Your task to perform on an android device: Open sound settings Image 0: 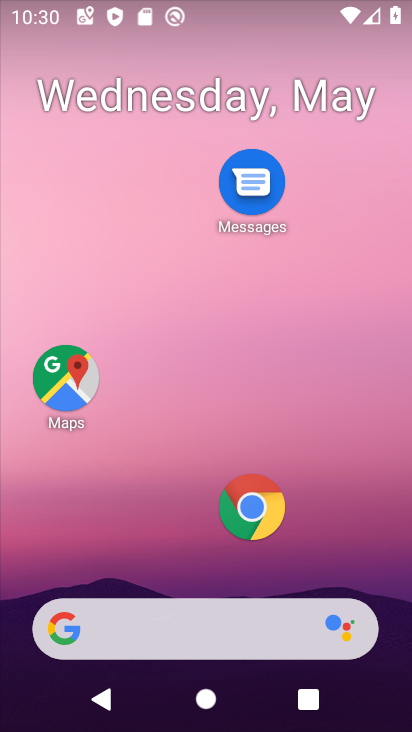
Step 0: drag from (192, 569) to (187, 36)
Your task to perform on an android device: Open sound settings Image 1: 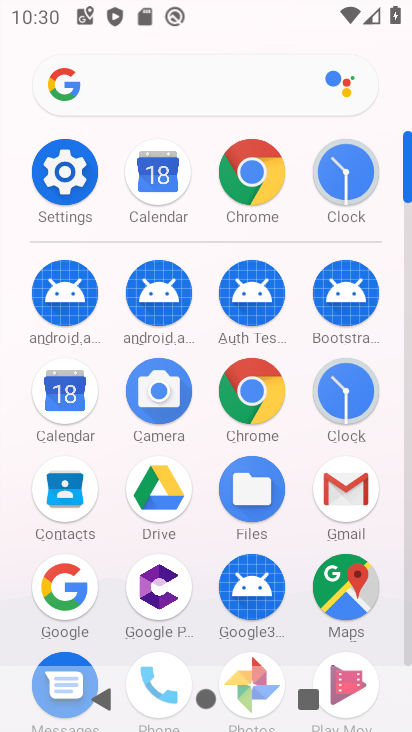
Step 1: click (59, 169)
Your task to perform on an android device: Open sound settings Image 2: 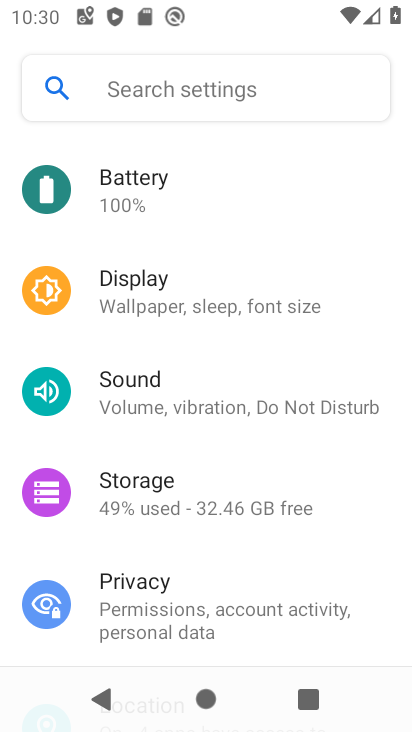
Step 2: click (172, 383)
Your task to perform on an android device: Open sound settings Image 3: 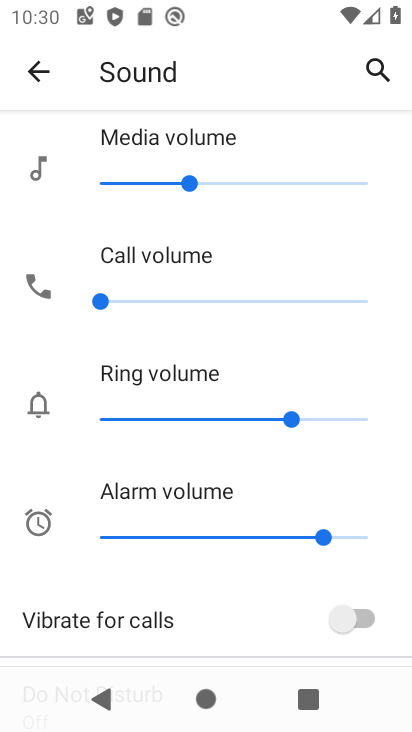
Step 3: drag from (228, 629) to (251, 173)
Your task to perform on an android device: Open sound settings Image 4: 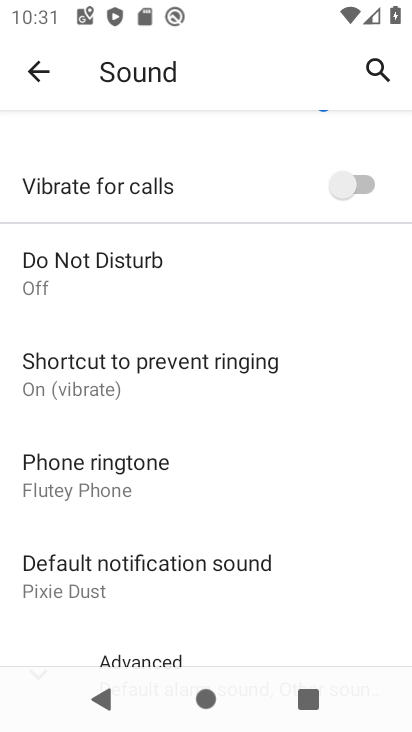
Step 4: drag from (186, 587) to (229, 149)
Your task to perform on an android device: Open sound settings Image 5: 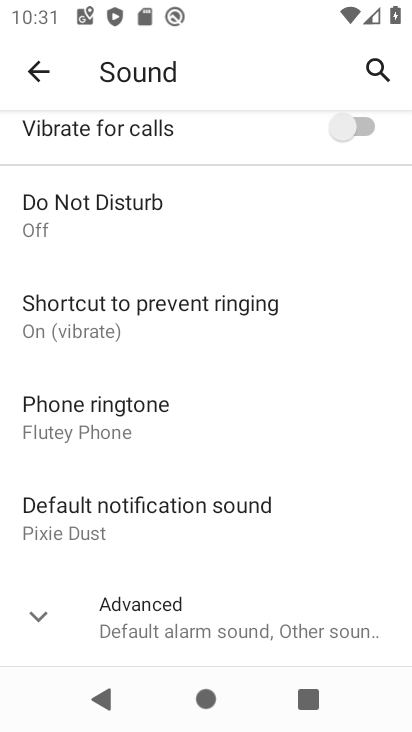
Step 5: click (39, 609)
Your task to perform on an android device: Open sound settings Image 6: 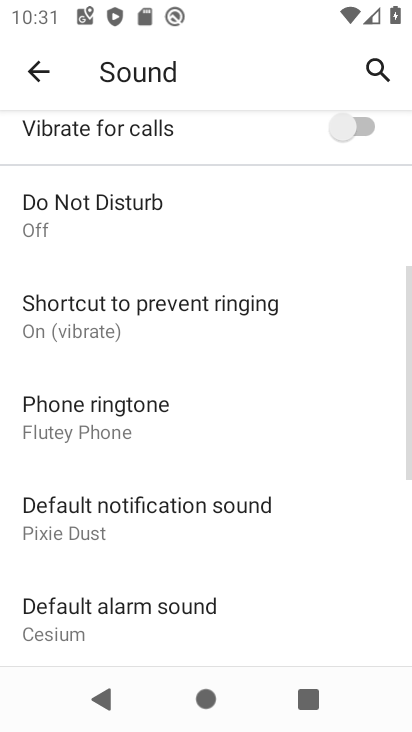
Step 6: task complete